Your task to perform on an android device: open sync settings in chrome Image 0: 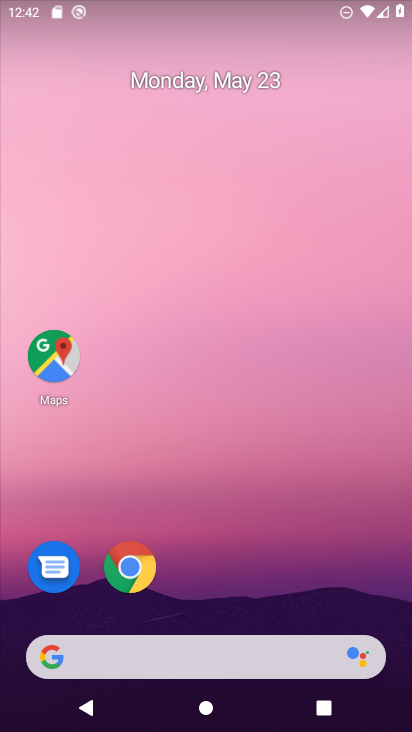
Step 0: click (147, 560)
Your task to perform on an android device: open sync settings in chrome Image 1: 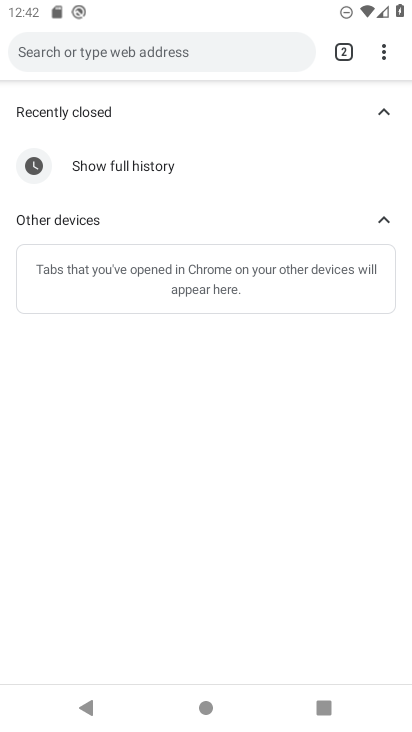
Step 1: click (392, 49)
Your task to perform on an android device: open sync settings in chrome Image 2: 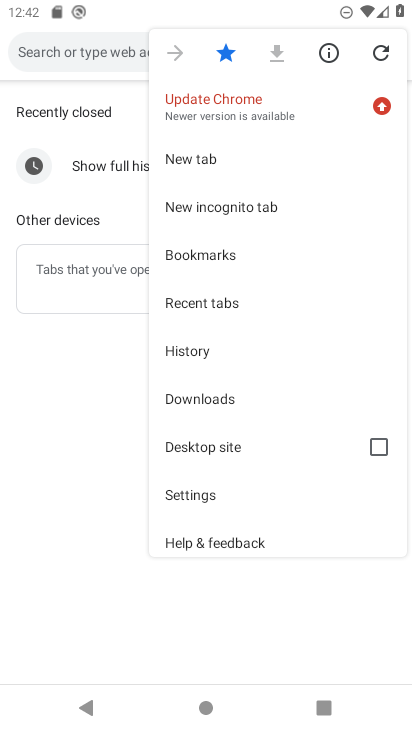
Step 2: click (212, 506)
Your task to perform on an android device: open sync settings in chrome Image 3: 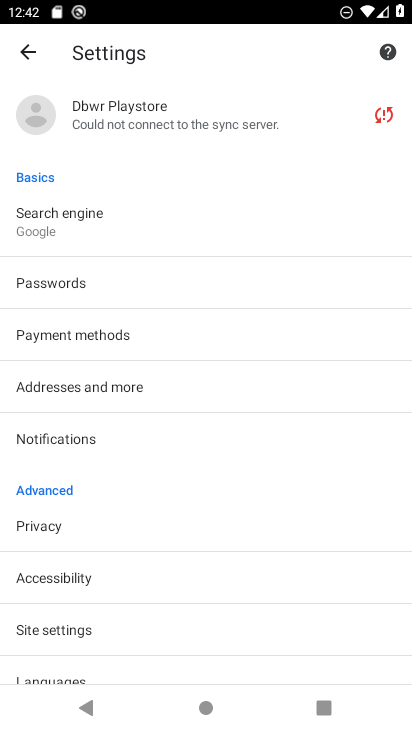
Step 3: click (94, 128)
Your task to perform on an android device: open sync settings in chrome Image 4: 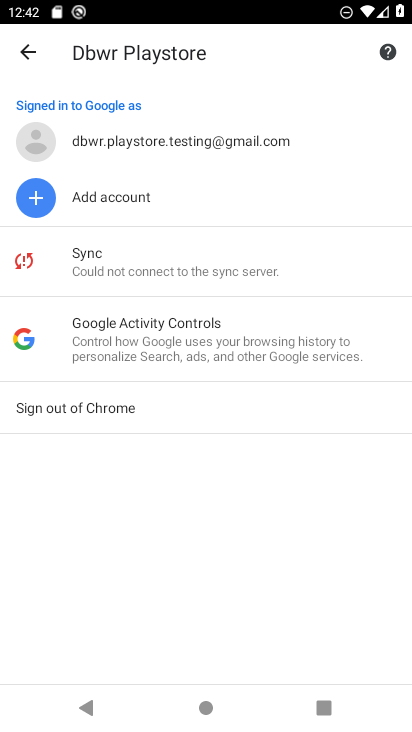
Step 4: click (166, 263)
Your task to perform on an android device: open sync settings in chrome Image 5: 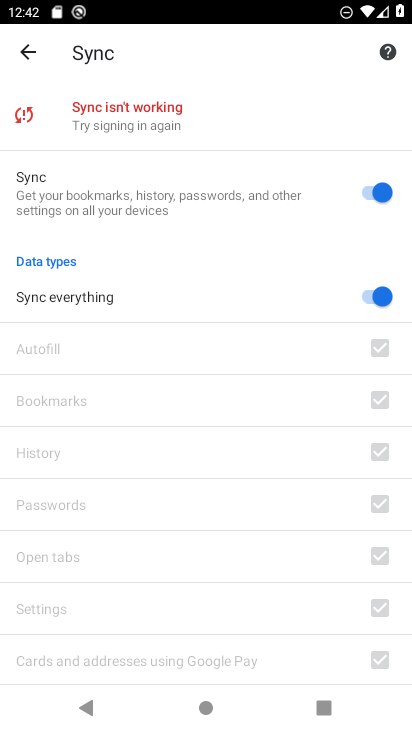
Step 5: task complete